Your task to perform on an android device: Open Youtube and go to the subscriptions tab Image 0: 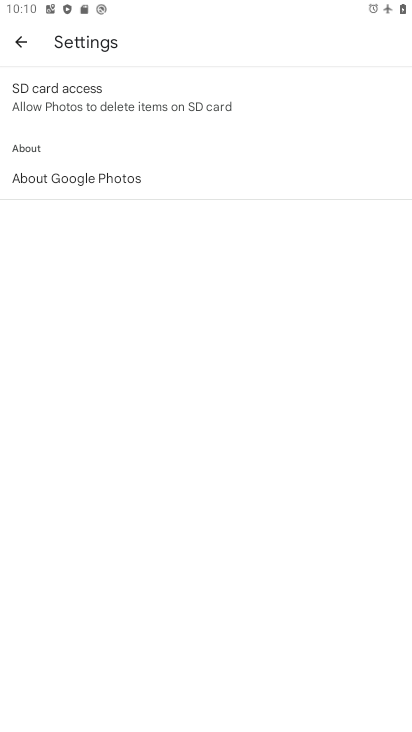
Step 0: press home button
Your task to perform on an android device: Open Youtube and go to the subscriptions tab Image 1: 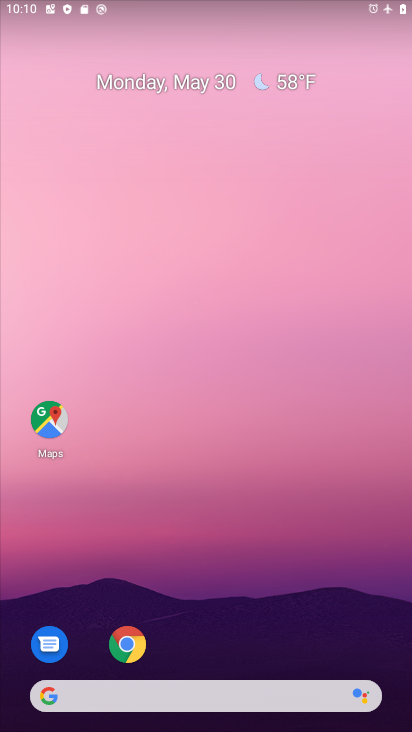
Step 1: drag from (303, 632) to (282, 172)
Your task to perform on an android device: Open Youtube and go to the subscriptions tab Image 2: 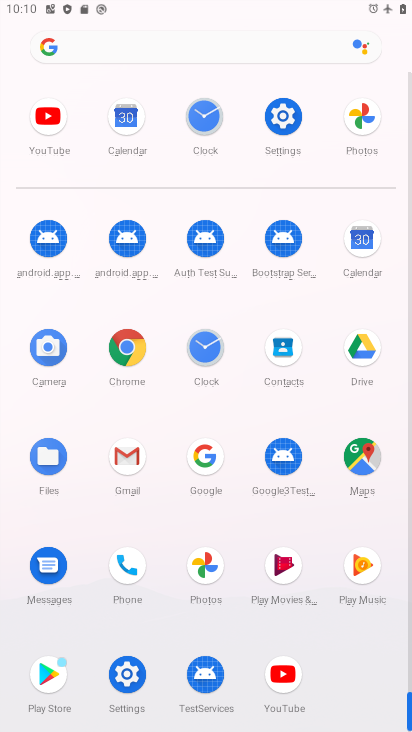
Step 2: click (283, 672)
Your task to perform on an android device: Open Youtube and go to the subscriptions tab Image 3: 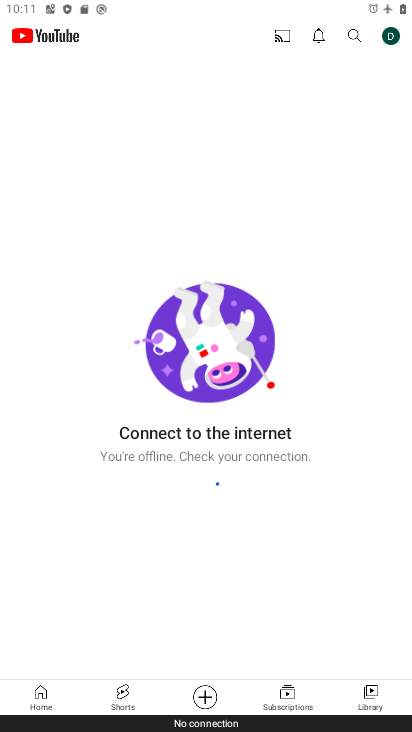
Step 3: click (284, 694)
Your task to perform on an android device: Open Youtube and go to the subscriptions tab Image 4: 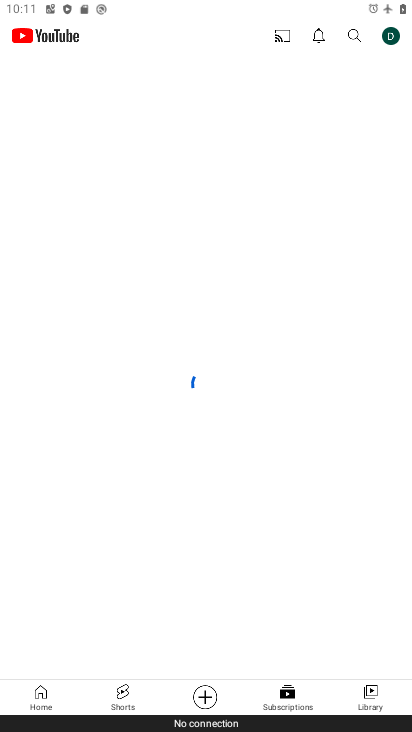
Step 4: task complete